Your task to perform on an android device: Open notification settings Image 0: 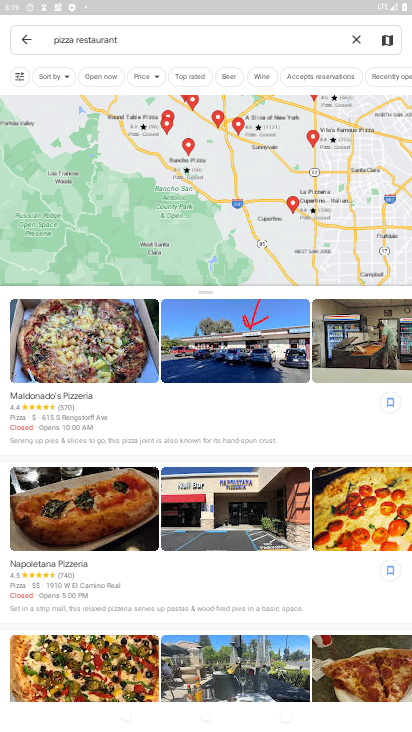
Step 0: press home button
Your task to perform on an android device: Open notification settings Image 1: 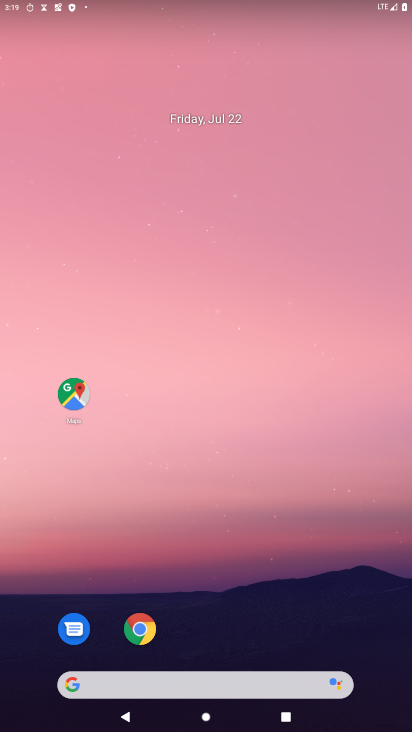
Step 1: drag from (145, 685) to (289, 1)
Your task to perform on an android device: Open notification settings Image 2: 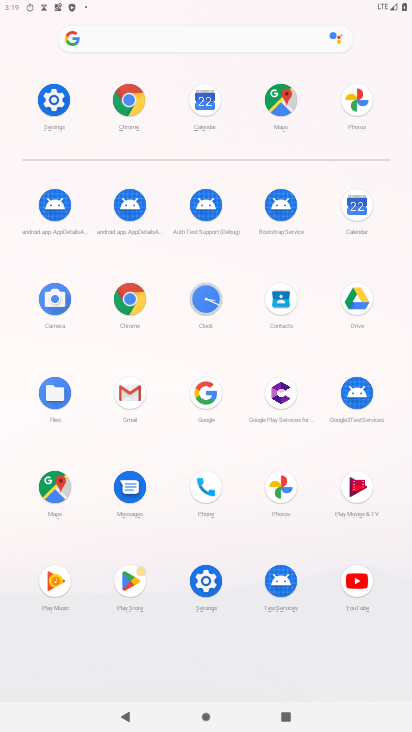
Step 2: click (56, 101)
Your task to perform on an android device: Open notification settings Image 3: 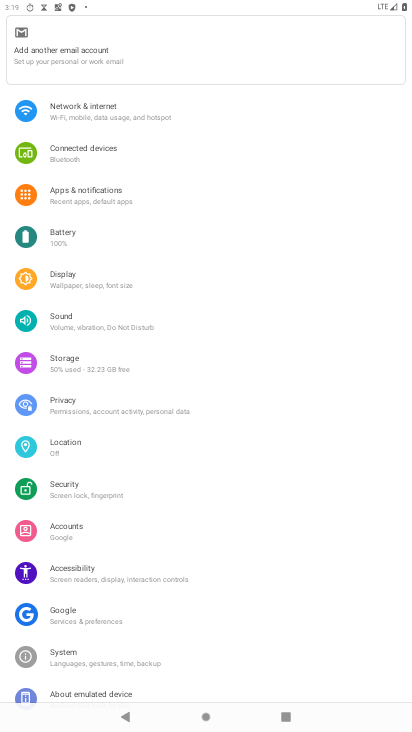
Step 3: click (88, 196)
Your task to perform on an android device: Open notification settings Image 4: 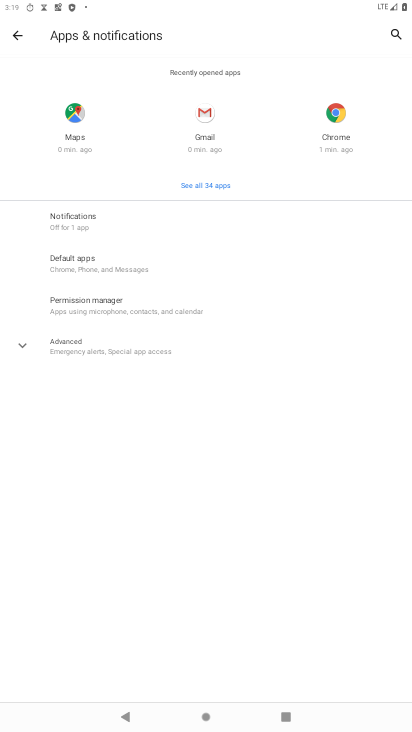
Step 4: click (85, 225)
Your task to perform on an android device: Open notification settings Image 5: 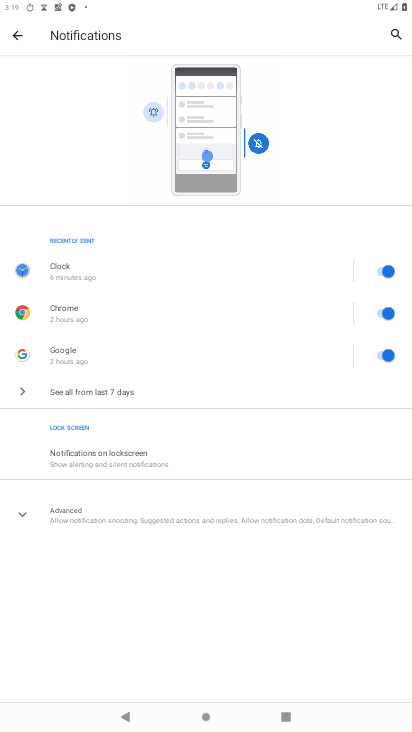
Step 5: task complete